Your task to perform on an android device: set the stopwatch Image 0: 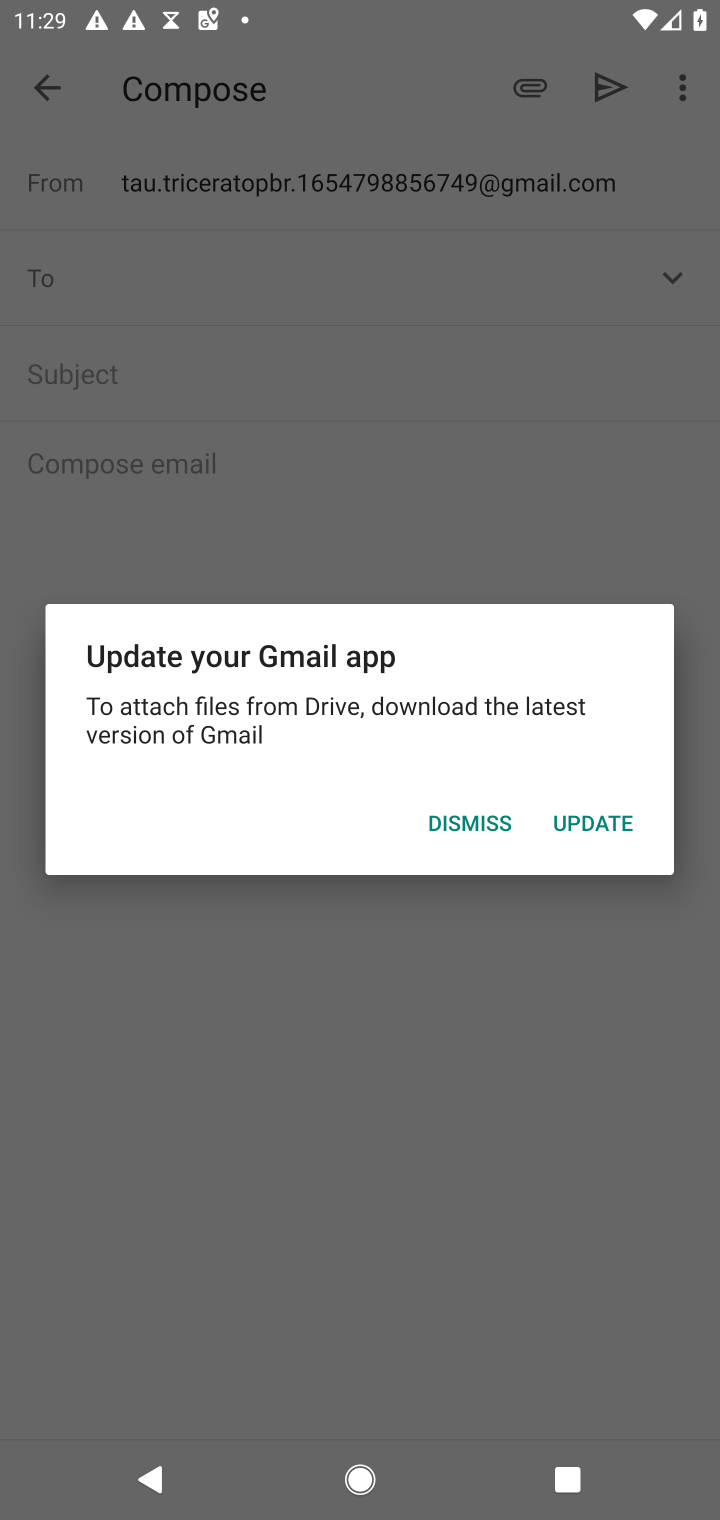
Step 0: press home button
Your task to perform on an android device: set the stopwatch Image 1: 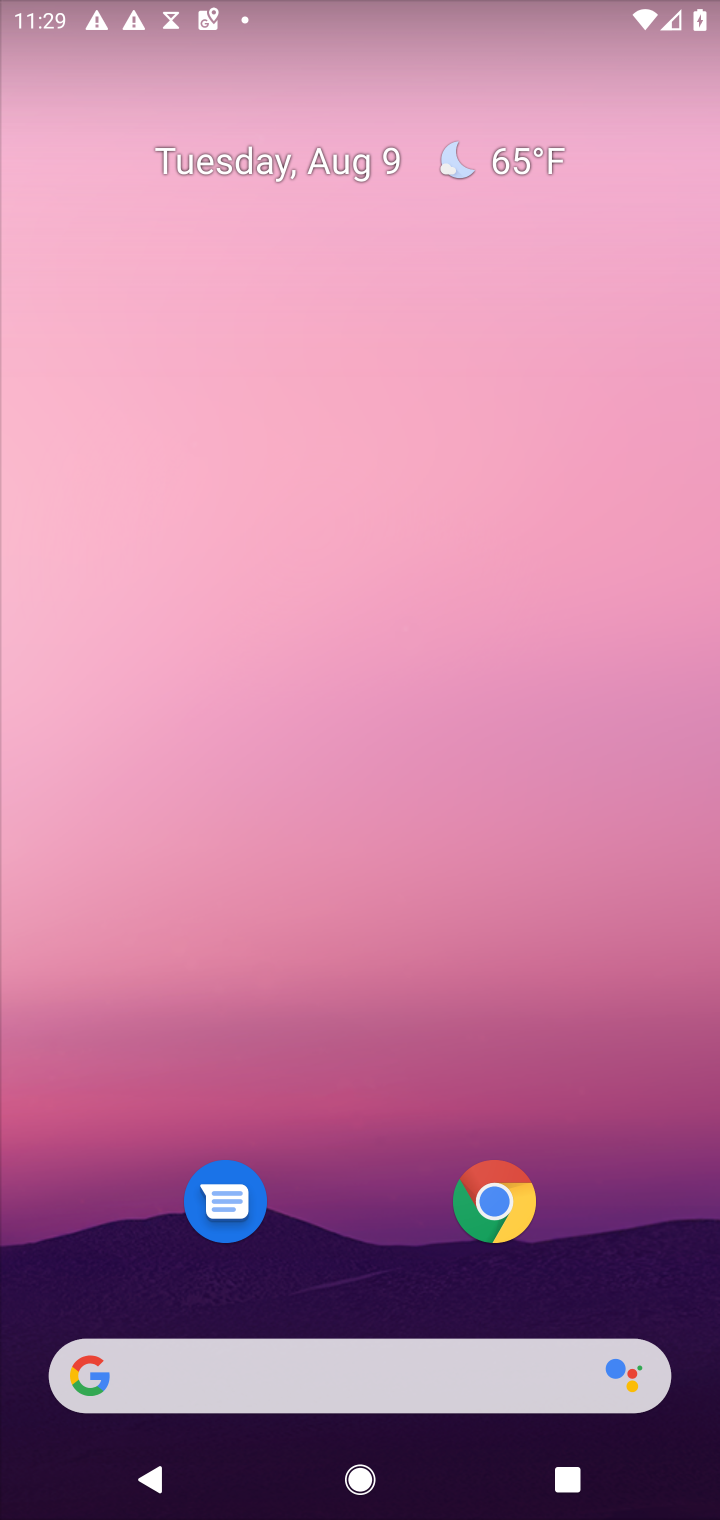
Step 1: drag from (362, 631) to (389, 56)
Your task to perform on an android device: set the stopwatch Image 2: 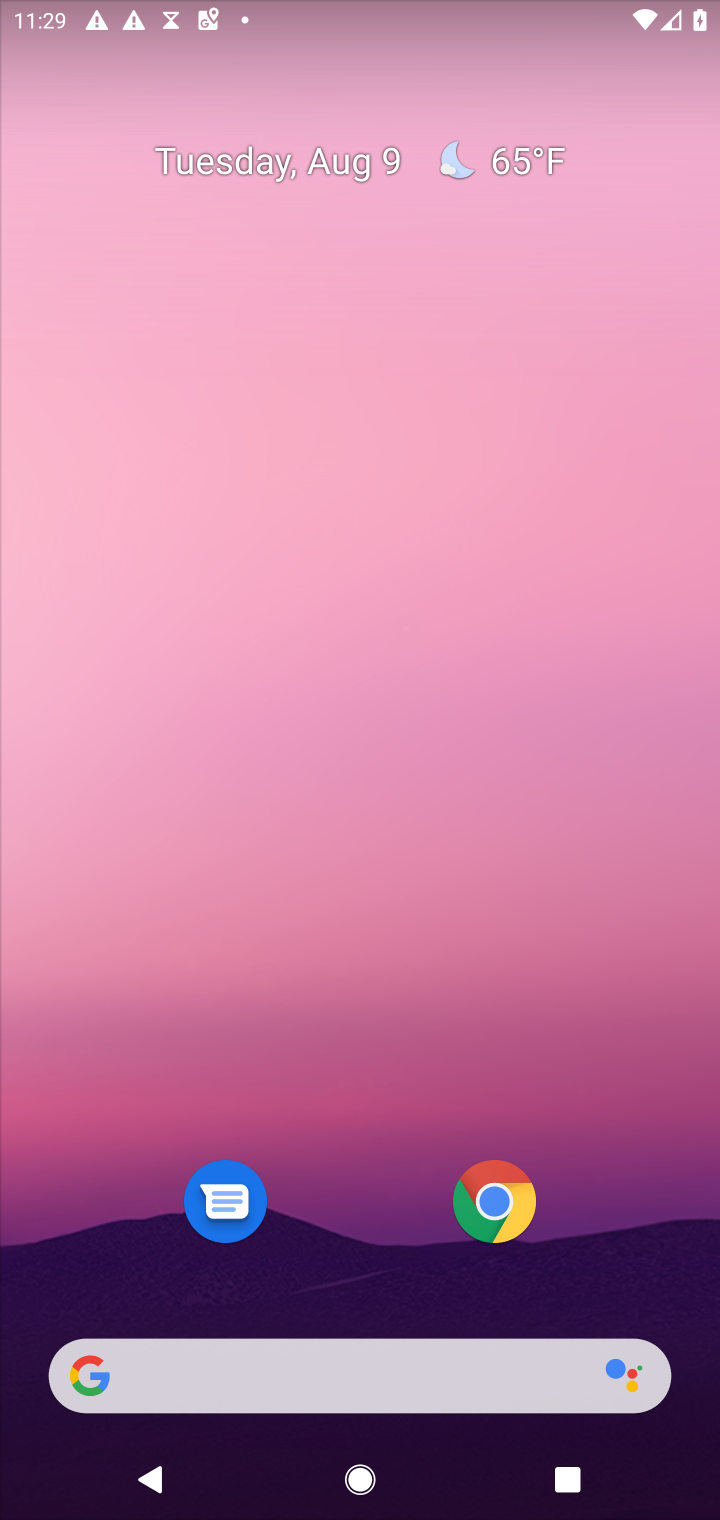
Step 2: drag from (362, 1256) to (708, 1496)
Your task to perform on an android device: set the stopwatch Image 3: 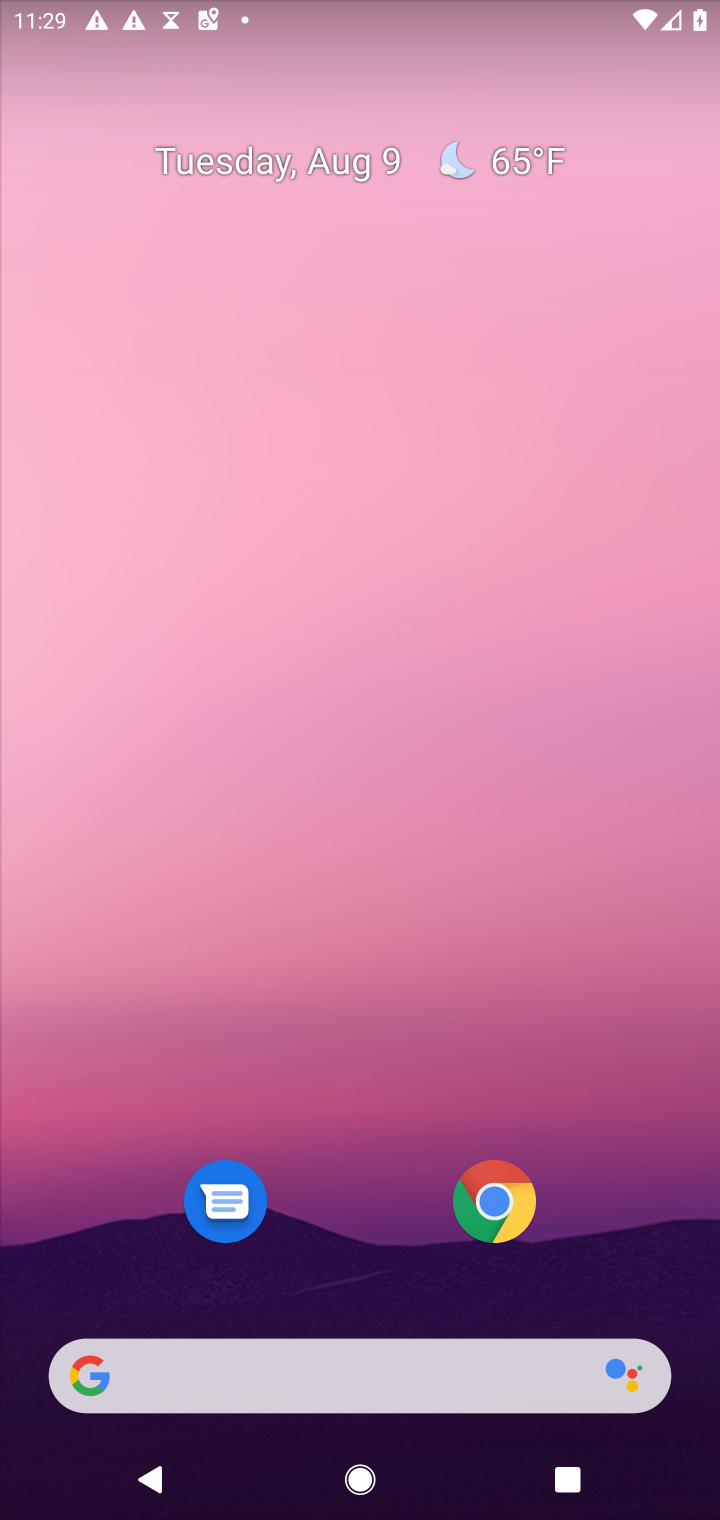
Step 3: drag from (368, 1255) to (706, 516)
Your task to perform on an android device: set the stopwatch Image 4: 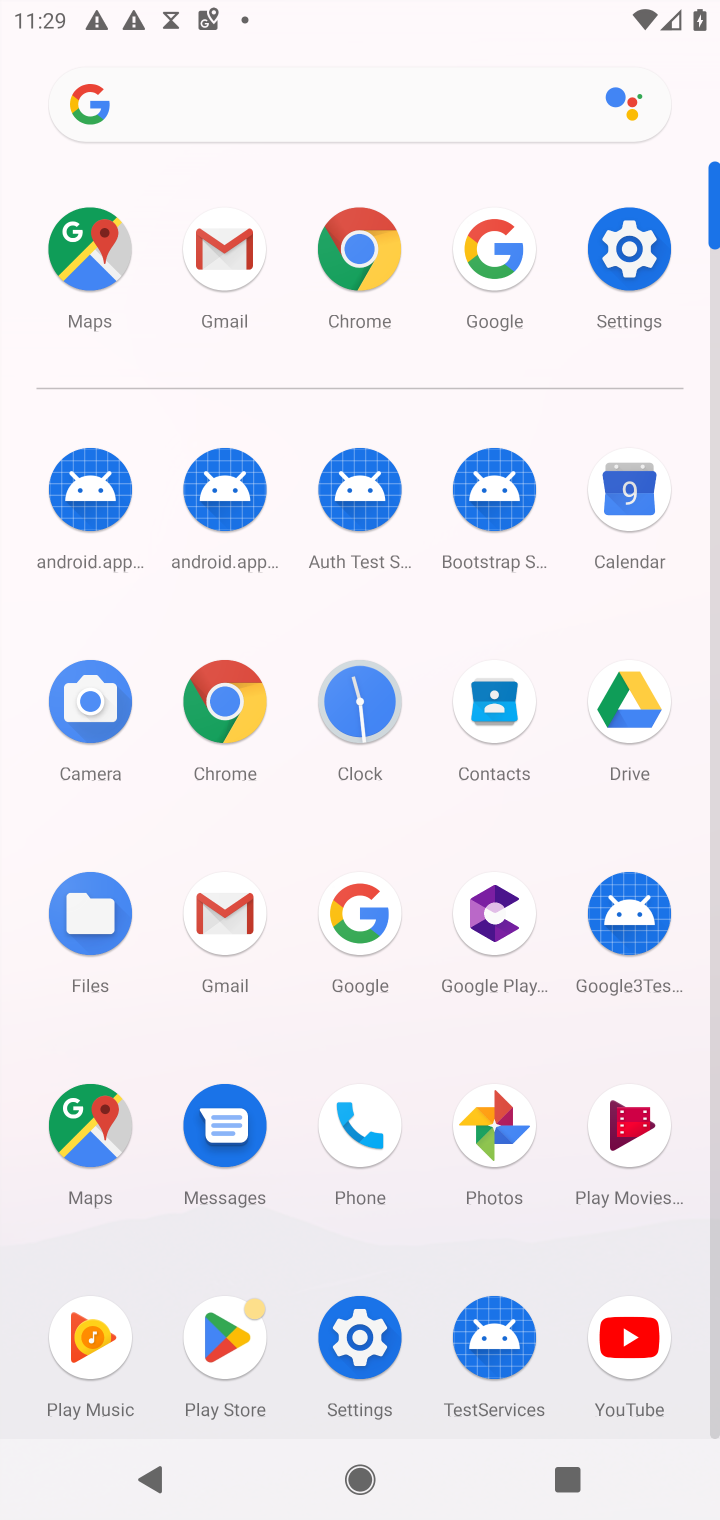
Step 4: click (346, 726)
Your task to perform on an android device: set the stopwatch Image 5: 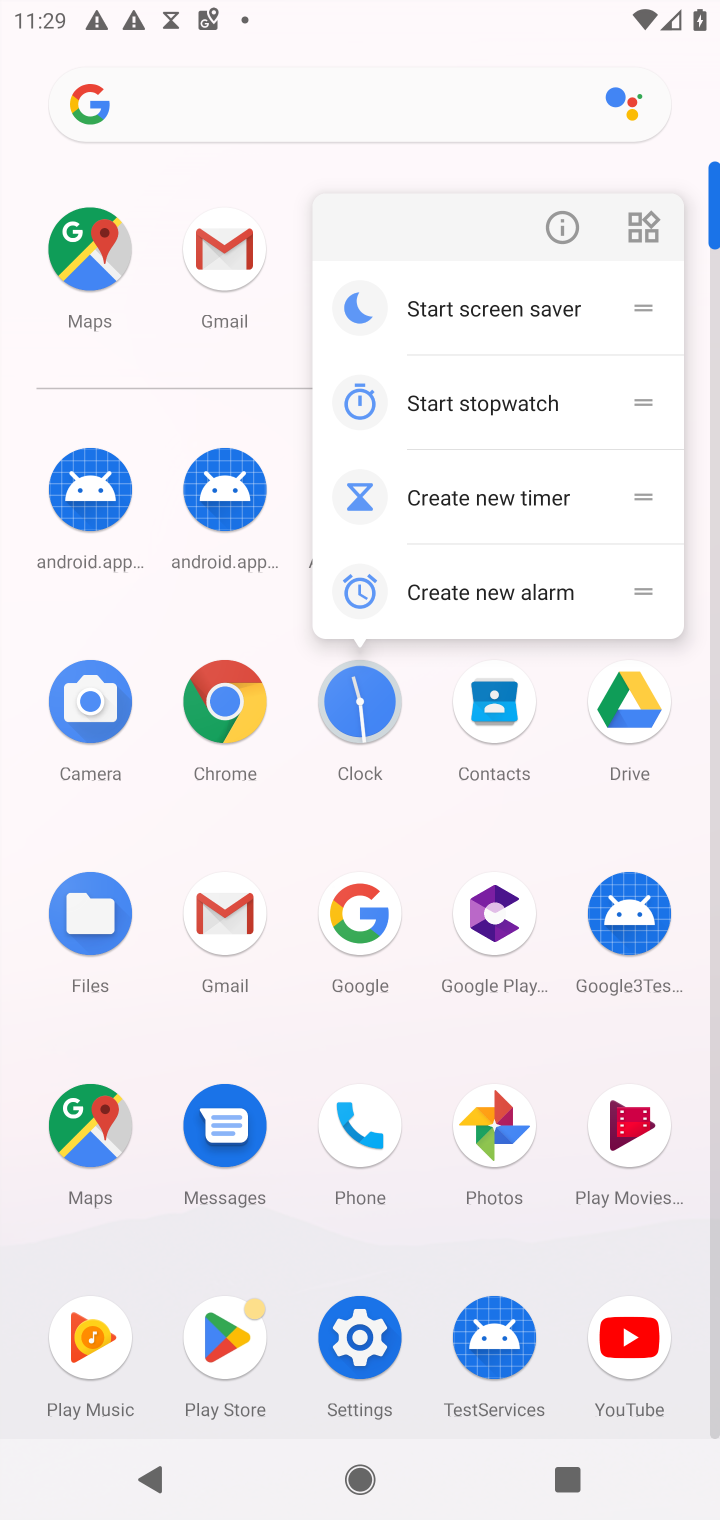
Step 5: click (346, 721)
Your task to perform on an android device: set the stopwatch Image 6: 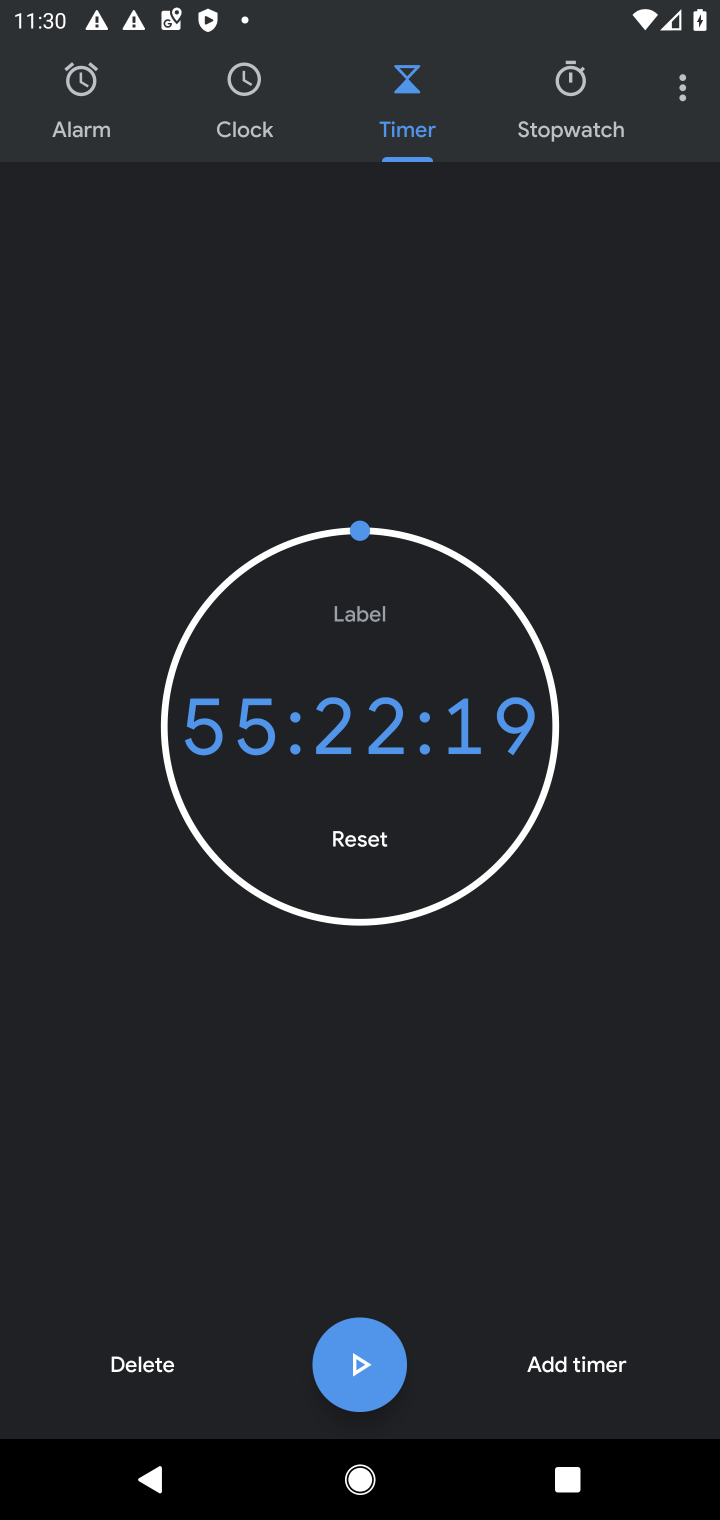
Step 6: click (562, 94)
Your task to perform on an android device: set the stopwatch Image 7: 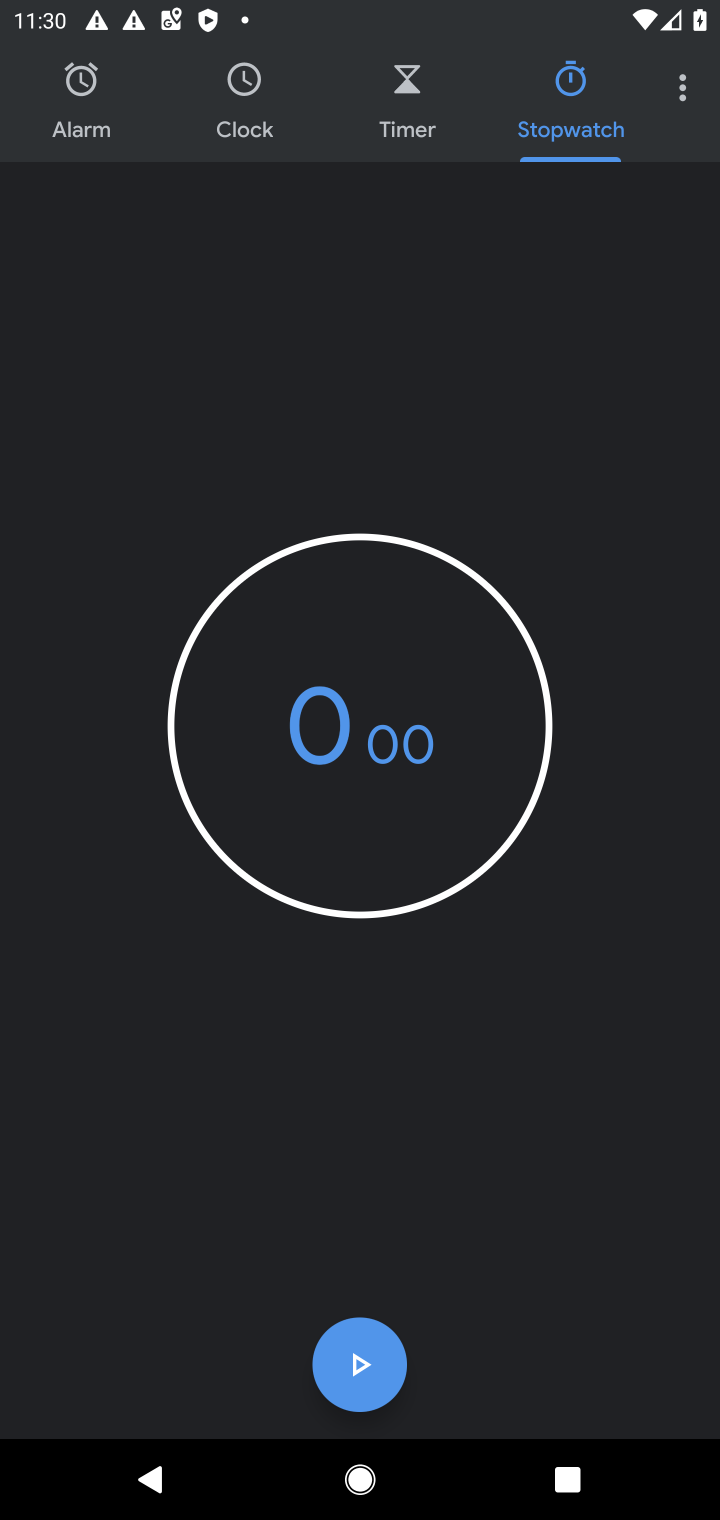
Step 7: click (405, 1359)
Your task to perform on an android device: set the stopwatch Image 8: 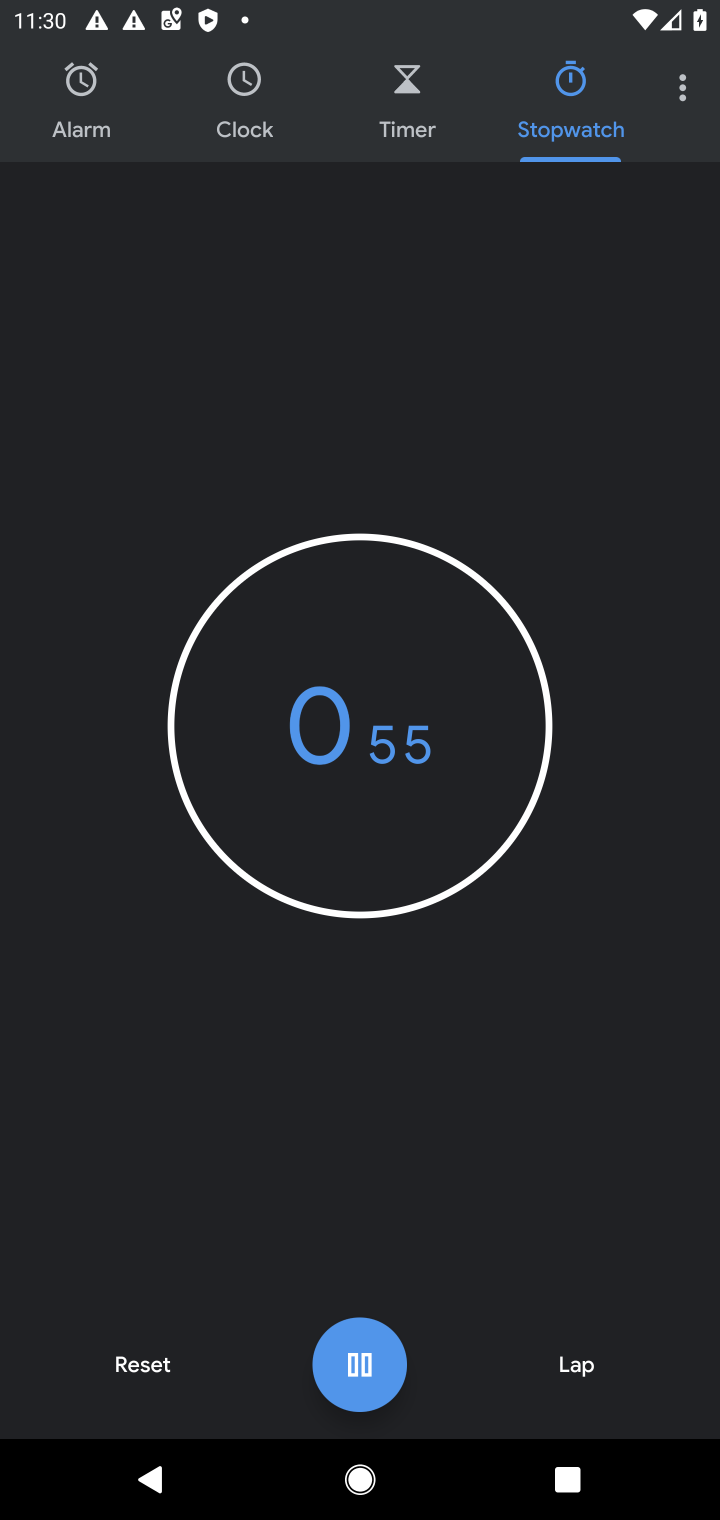
Step 8: click (366, 1361)
Your task to perform on an android device: set the stopwatch Image 9: 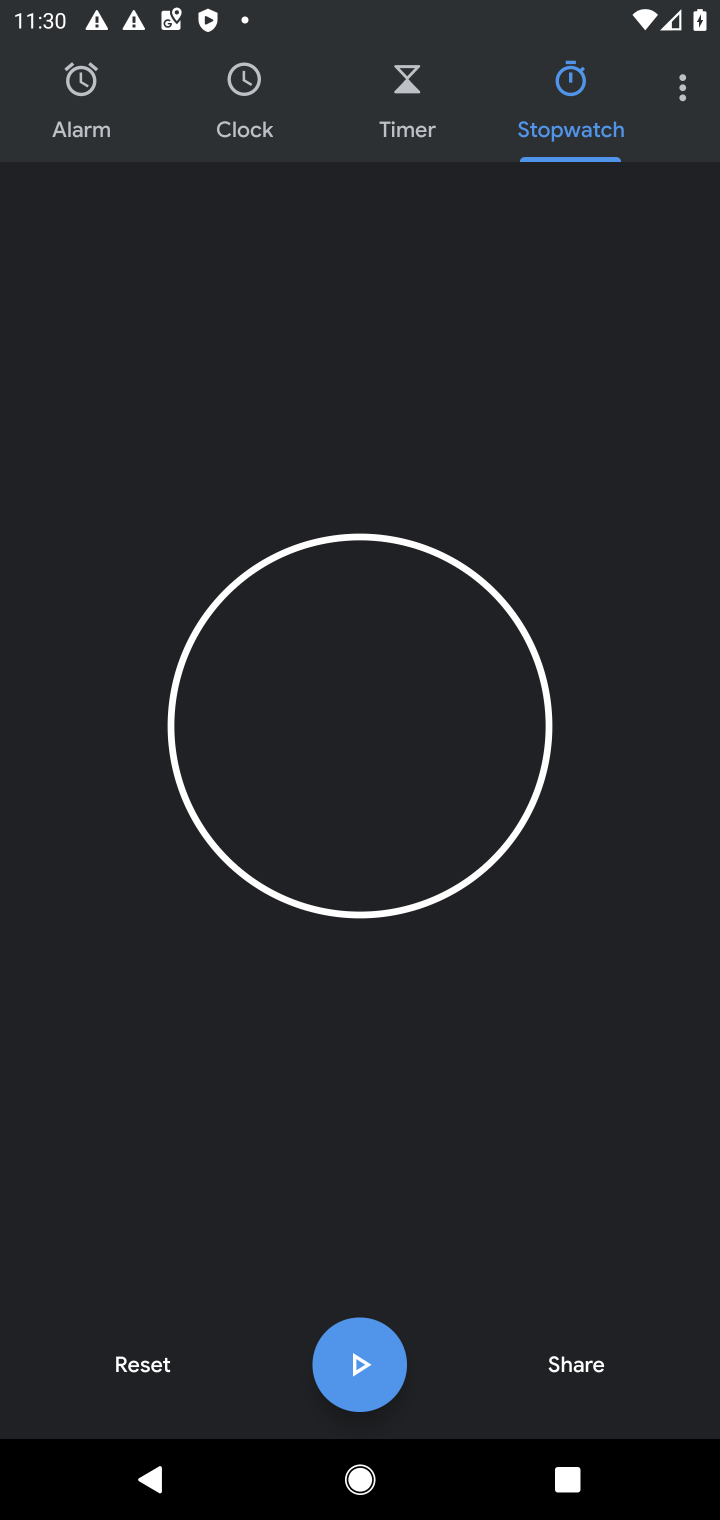
Step 9: click (356, 1371)
Your task to perform on an android device: set the stopwatch Image 10: 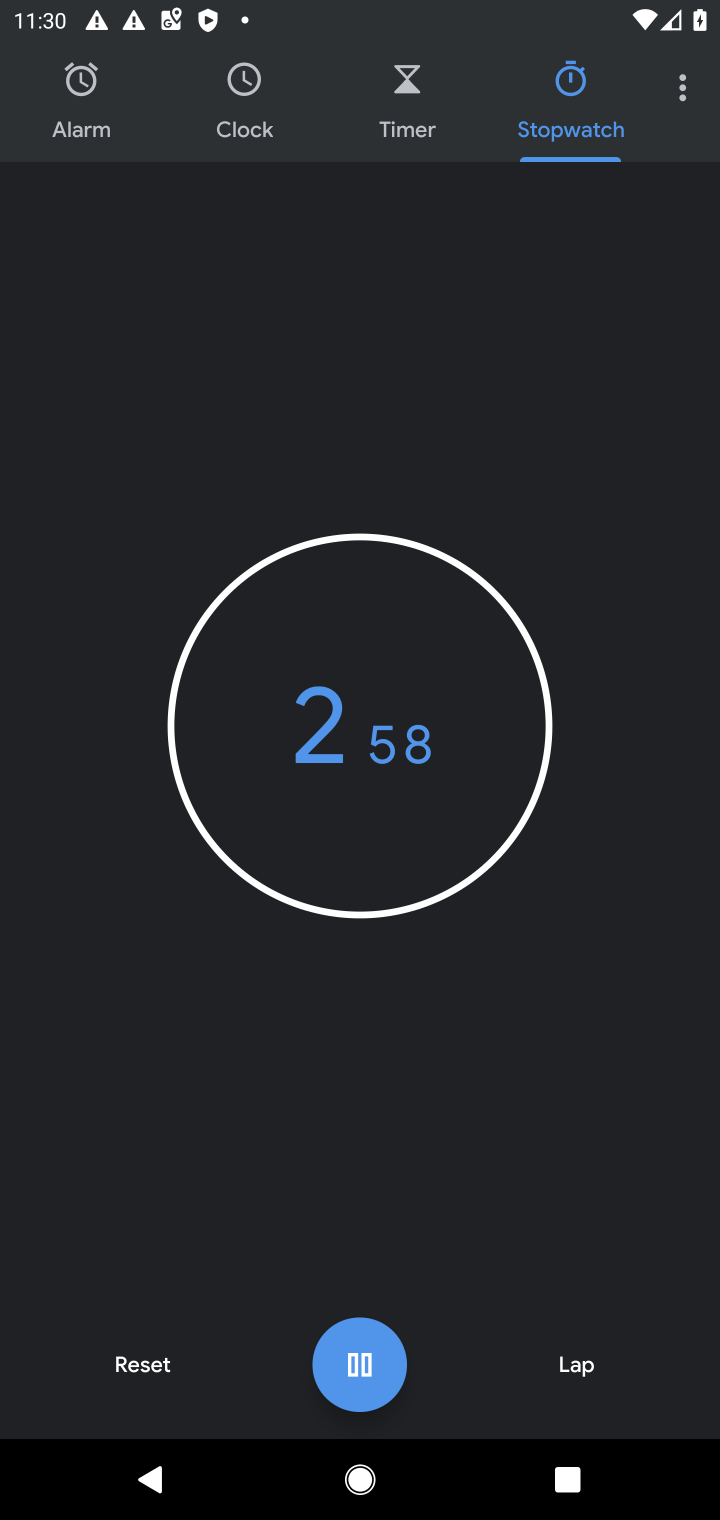
Step 10: task complete